Your task to perform on an android device: choose inbox layout in the gmail app Image 0: 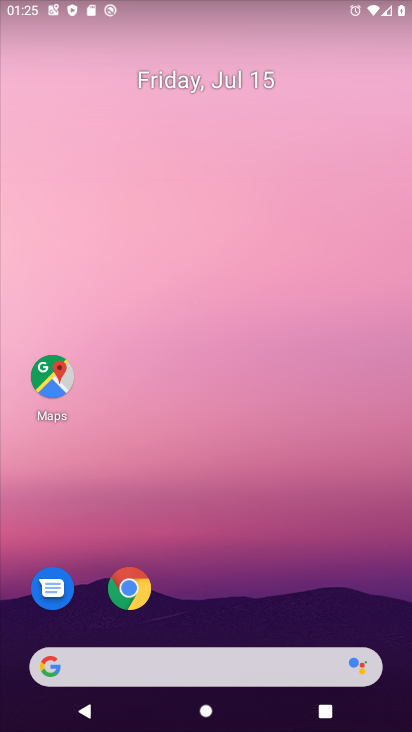
Step 0: drag from (364, 605) to (370, 68)
Your task to perform on an android device: choose inbox layout in the gmail app Image 1: 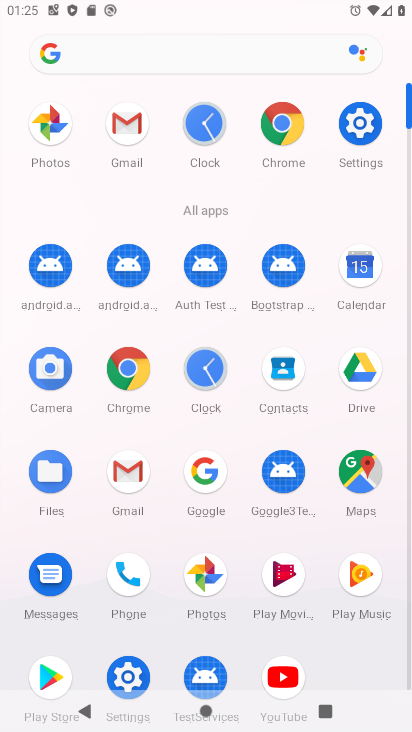
Step 1: click (125, 466)
Your task to perform on an android device: choose inbox layout in the gmail app Image 2: 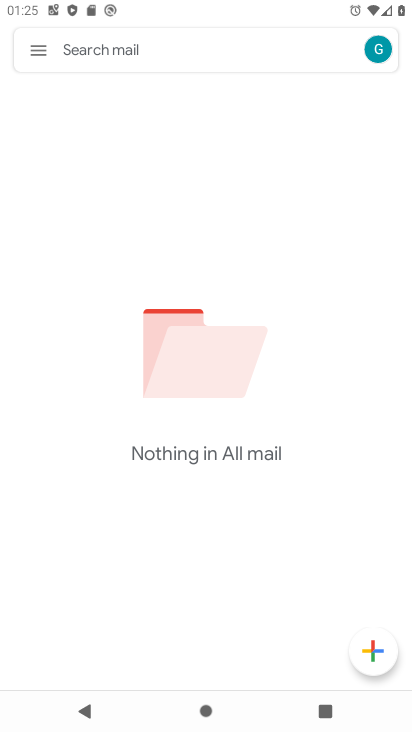
Step 2: click (37, 53)
Your task to perform on an android device: choose inbox layout in the gmail app Image 3: 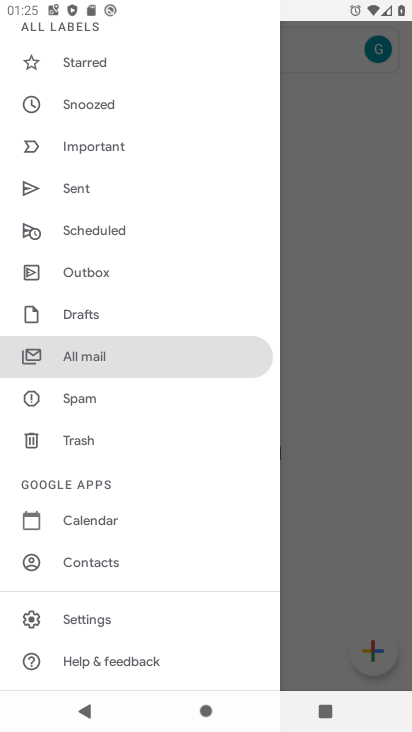
Step 3: click (73, 619)
Your task to perform on an android device: choose inbox layout in the gmail app Image 4: 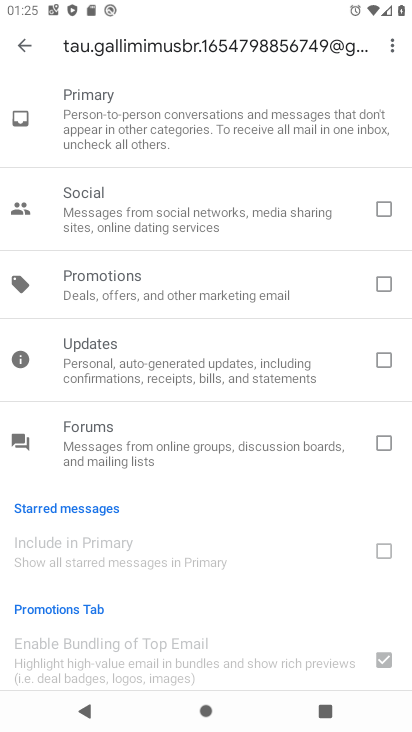
Step 4: press back button
Your task to perform on an android device: choose inbox layout in the gmail app Image 5: 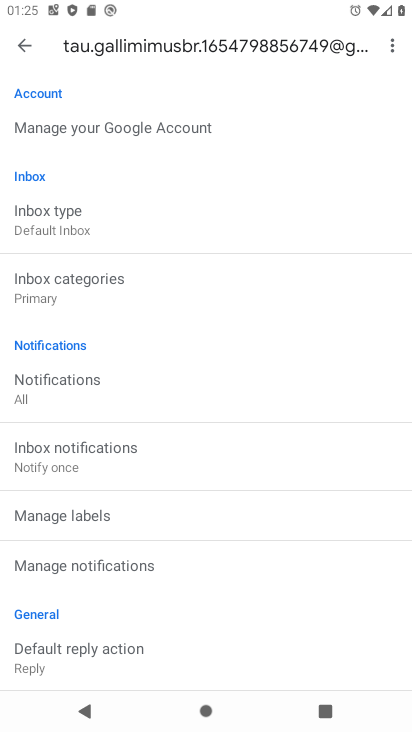
Step 5: click (71, 218)
Your task to perform on an android device: choose inbox layout in the gmail app Image 6: 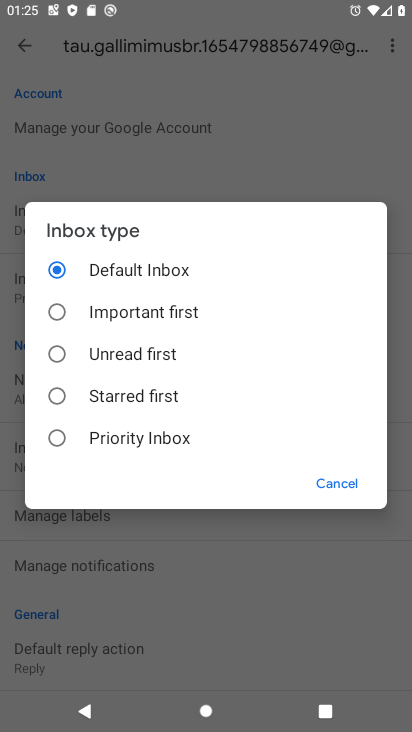
Step 6: click (57, 308)
Your task to perform on an android device: choose inbox layout in the gmail app Image 7: 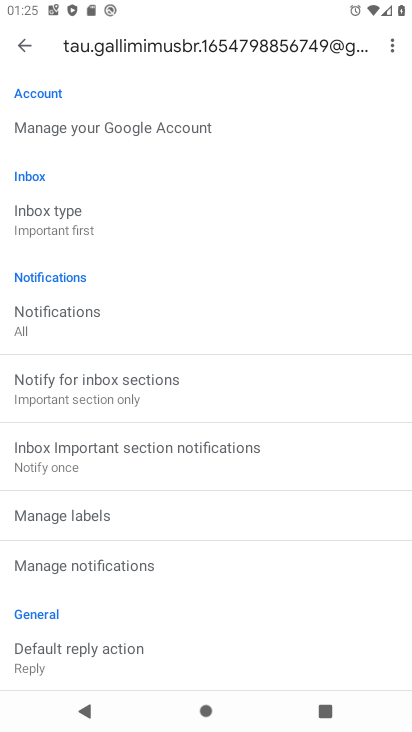
Step 7: task complete